Your task to perform on an android device: Open the stopwatch Image 0: 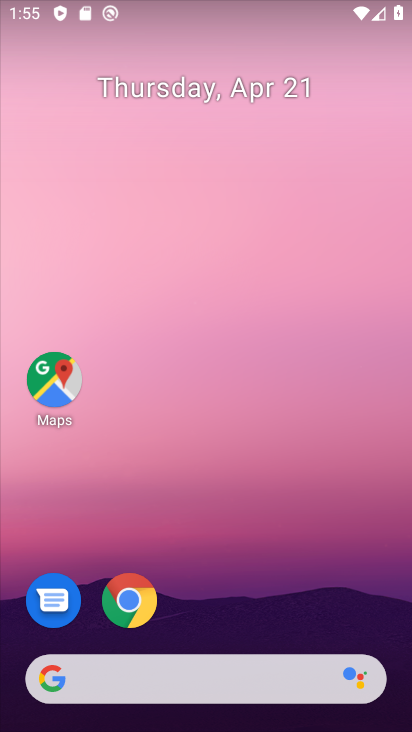
Step 0: drag from (307, 565) to (274, 120)
Your task to perform on an android device: Open the stopwatch Image 1: 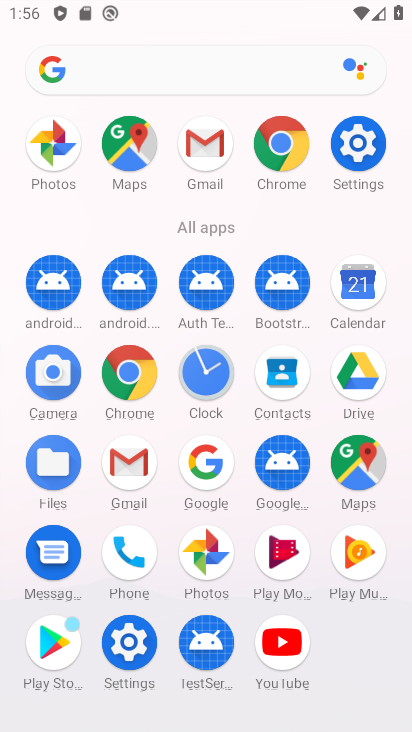
Step 1: click (209, 375)
Your task to perform on an android device: Open the stopwatch Image 2: 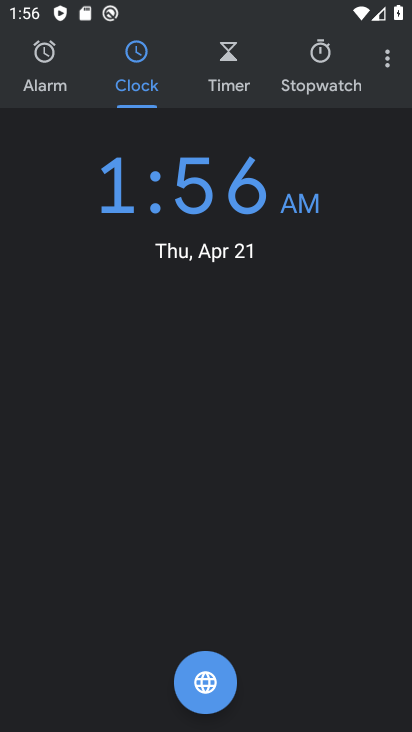
Step 2: click (337, 61)
Your task to perform on an android device: Open the stopwatch Image 3: 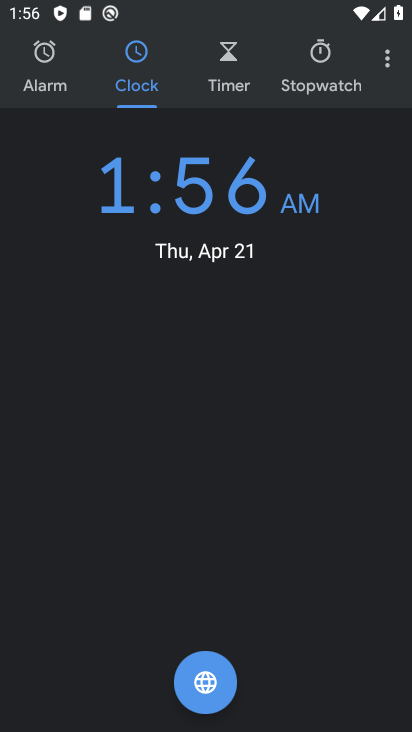
Step 3: click (323, 71)
Your task to perform on an android device: Open the stopwatch Image 4: 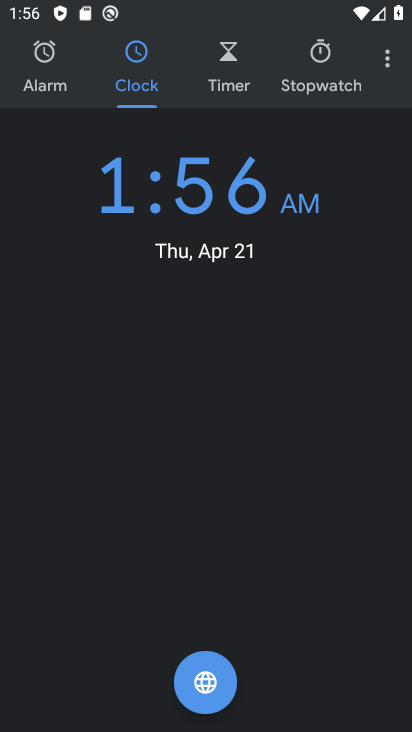
Step 4: click (337, 66)
Your task to perform on an android device: Open the stopwatch Image 5: 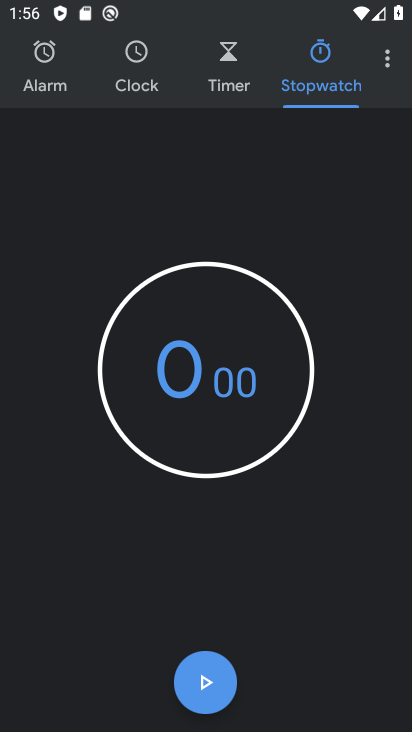
Step 5: task complete